Your task to perform on an android device: turn off data saver in the chrome app Image 0: 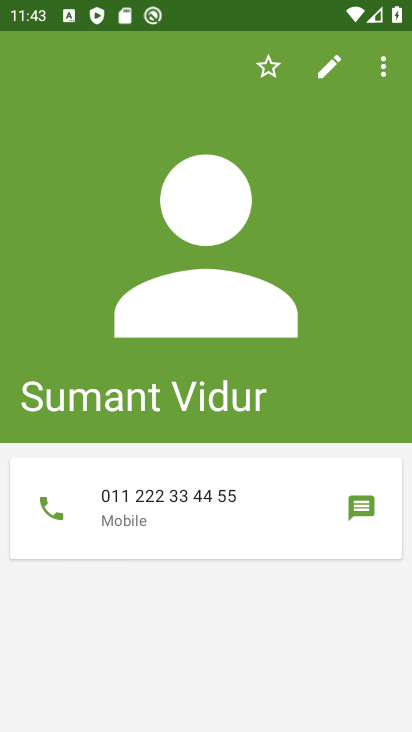
Step 0: press home button
Your task to perform on an android device: turn off data saver in the chrome app Image 1: 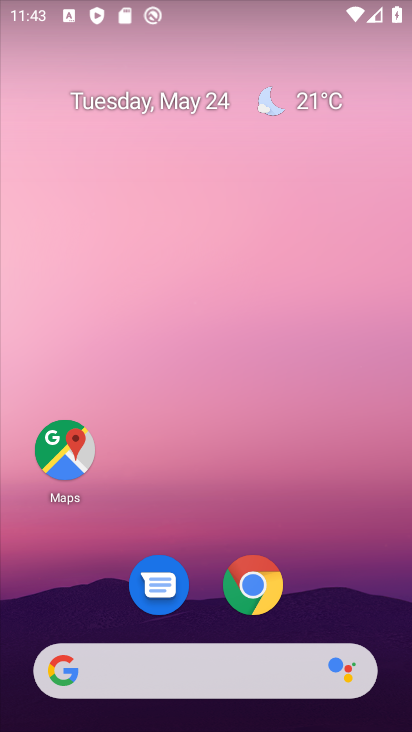
Step 1: click (258, 580)
Your task to perform on an android device: turn off data saver in the chrome app Image 2: 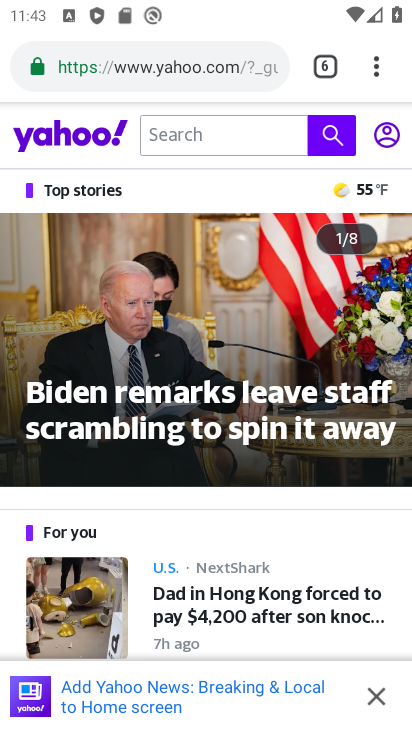
Step 2: click (376, 64)
Your task to perform on an android device: turn off data saver in the chrome app Image 3: 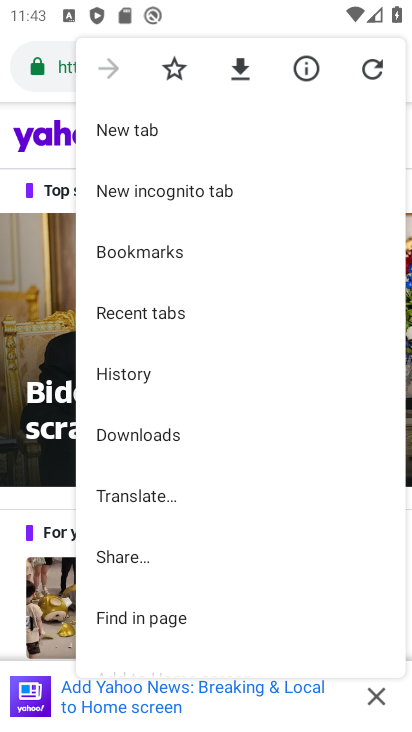
Step 3: drag from (266, 526) to (255, 261)
Your task to perform on an android device: turn off data saver in the chrome app Image 4: 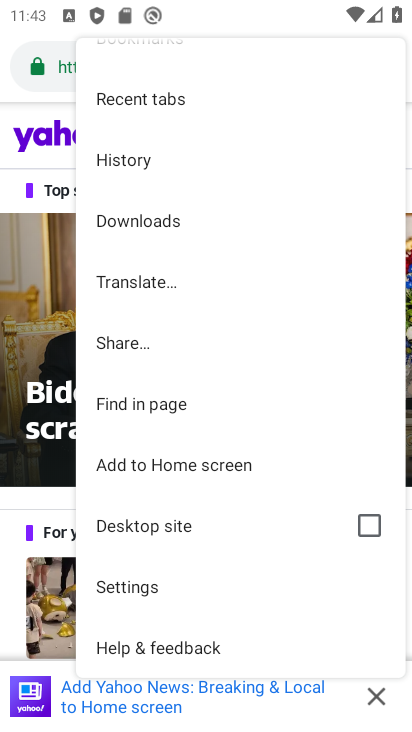
Step 4: click (158, 573)
Your task to perform on an android device: turn off data saver in the chrome app Image 5: 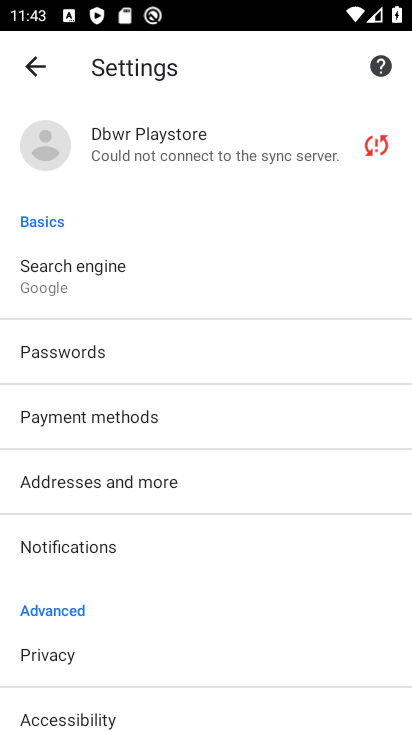
Step 5: drag from (215, 554) to (233, 263)
Your task to perform on an android device: turn off data saver in the chrome app Image 6: 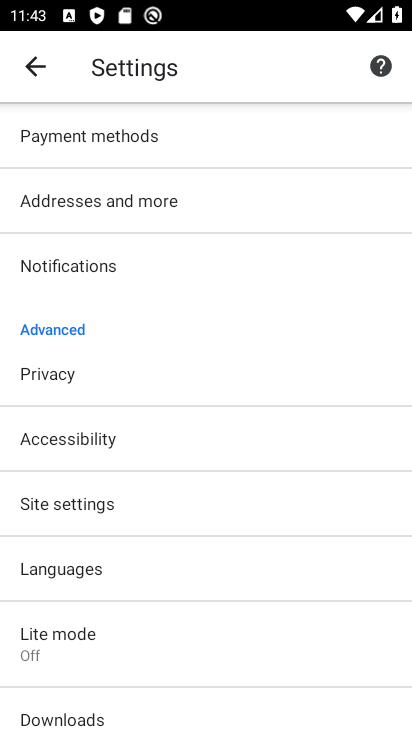
Step 6: click (167, 644)
Your task to perform on an android device: turn off data saver in the chrome app Image 7: 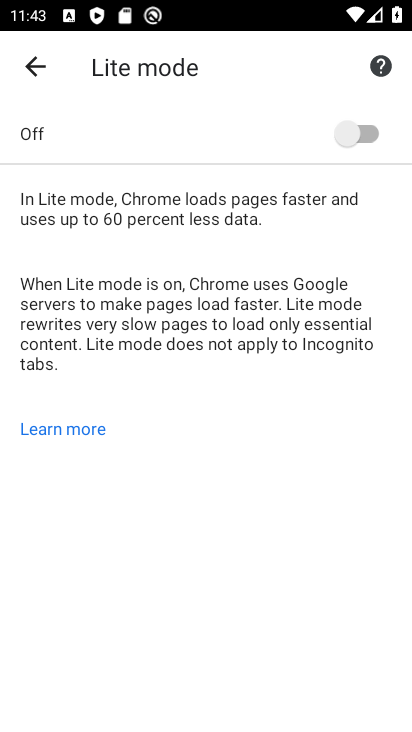
Step 7: task complete